Your task to perform on an android device: Search for Italian restaurants on Maps Image 0: 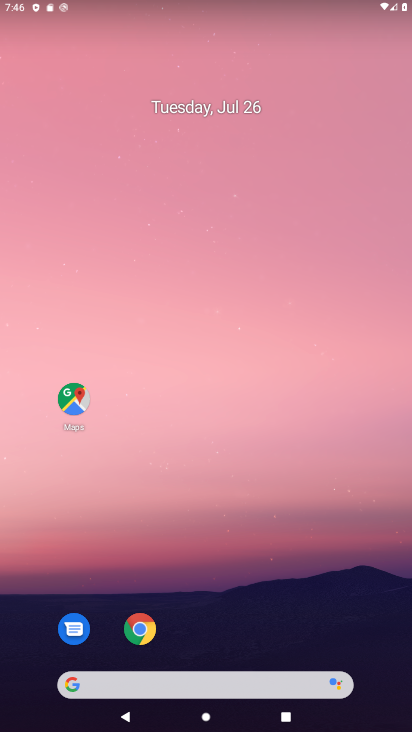
Step 0: click (73, 395)
Your task to perform on an android device: Search for Italian restaurants on Maps Image 1: 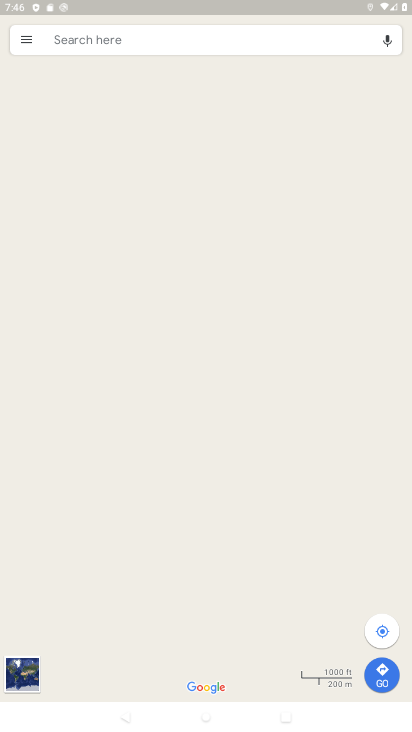
Step 1: click (127, 44)
Your task to perform on an android device: Search for Italian restaurants on Maps Image 2: 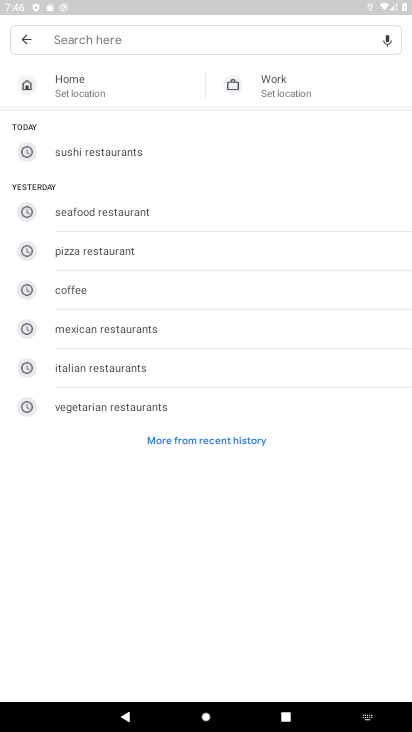
Step 2: type "italian restaurants"
Your task to perform on an android device: Search for Italian restaurants on Maps Image 3: 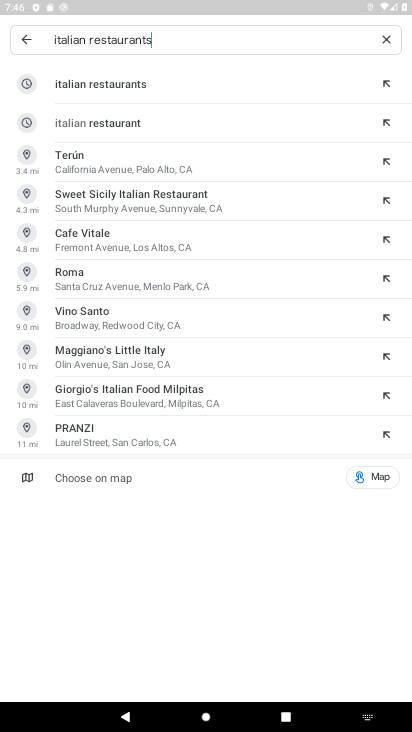
Step 3: click (86, 75)
Your task to perform on an android device: Search for Italian restaurants on Maps Image 4: 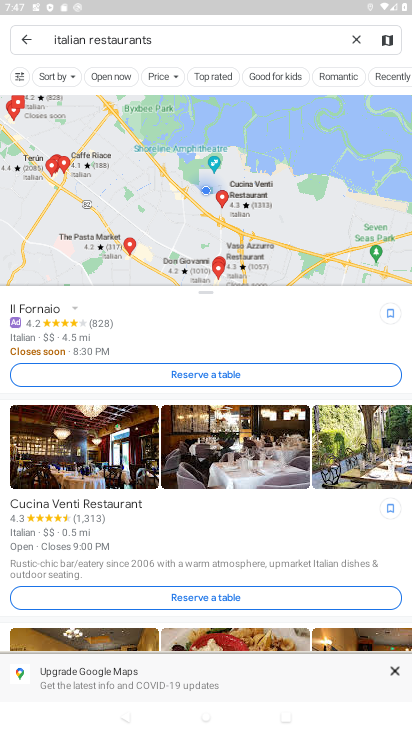
Step 4: task complete